Your task to perform on an android device: turn off smart reply in the gmail app Image 0: 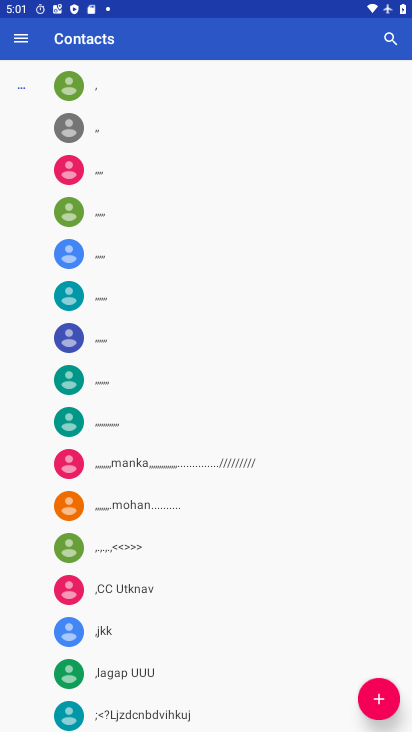
Step 0: press home button
Your task to perform on an android device: turn off smart reply in the gmail app Image 1: 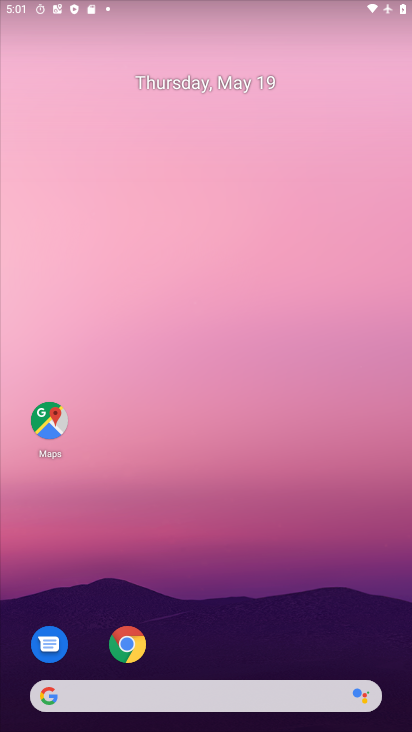
Step 1: drag from (202, 673) to (200, 230)
Your task to perform on an android device: turn off smart reply in the gmail app Image 2: 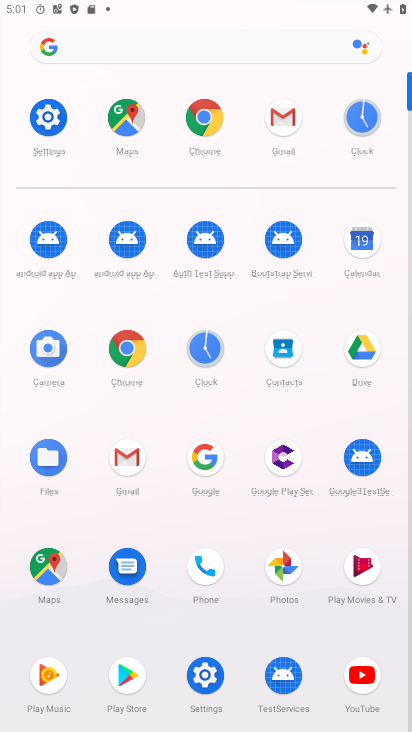
Step 2: click (111, 466)
Your task to perform on an android device: turn off smart reply in the gmail app Image 3: 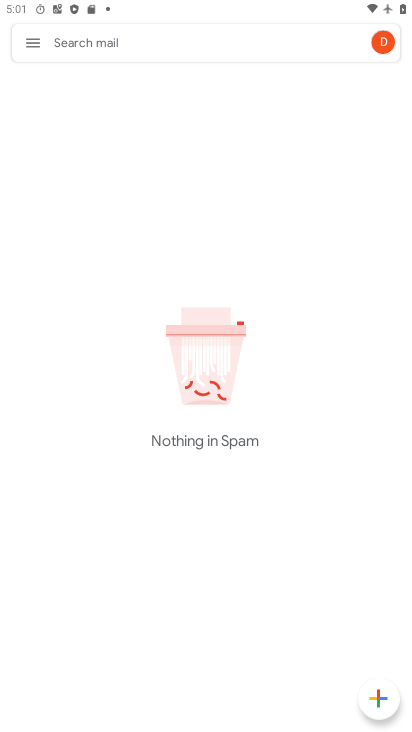
Step 3: click (38, 40)
Your task to perform on an android device: turn off smart reply in the gmail app Image 4: 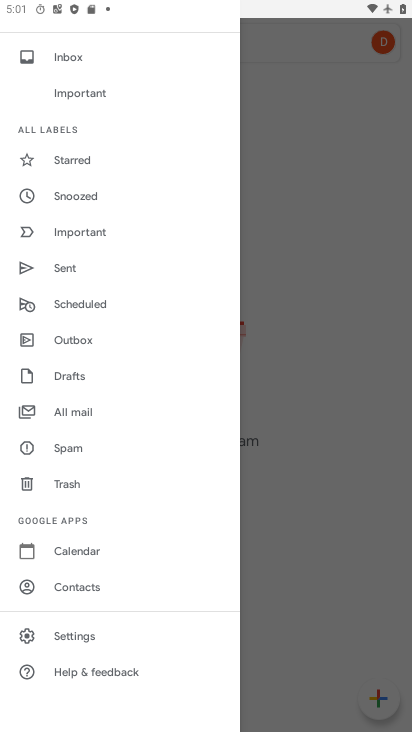
Step 4: click (74, 633)
Your task to perform on an android device: turn off smart reply in the gmail app Image 5: 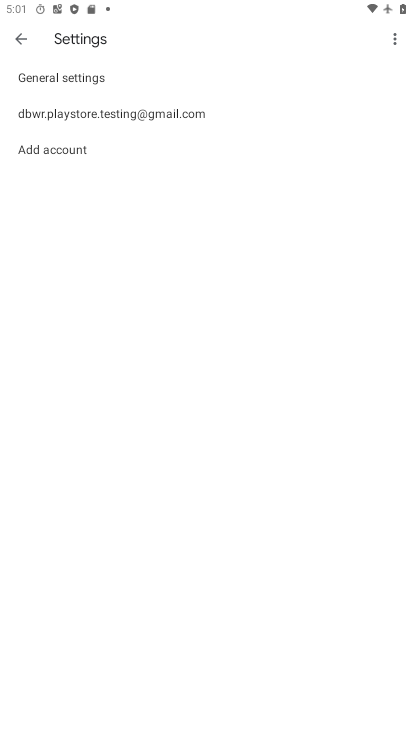
Step 5: click (65, 111)
Your task to perform on an android device: turn off smart reply in the gmail app Image 6: 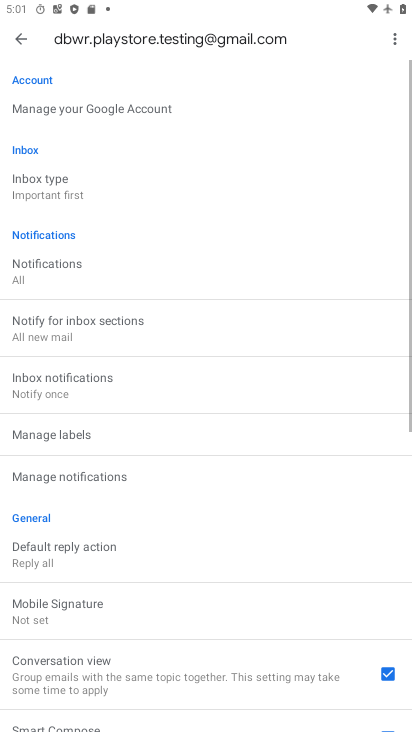
Step 6: drag from (148, 660) to (147, 263)
Your task to perform on an android device: turn off smart reply in the gmail app Image 7: 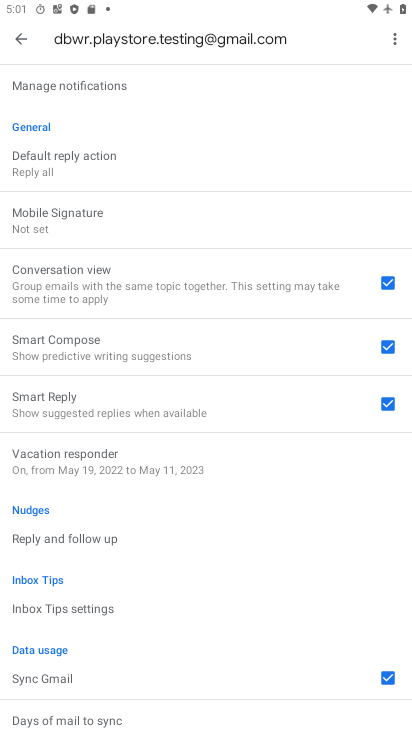
Step 7: click (390, 406)
Your task to perform on an android device: turn off smart reply in the gmail app Image 8: 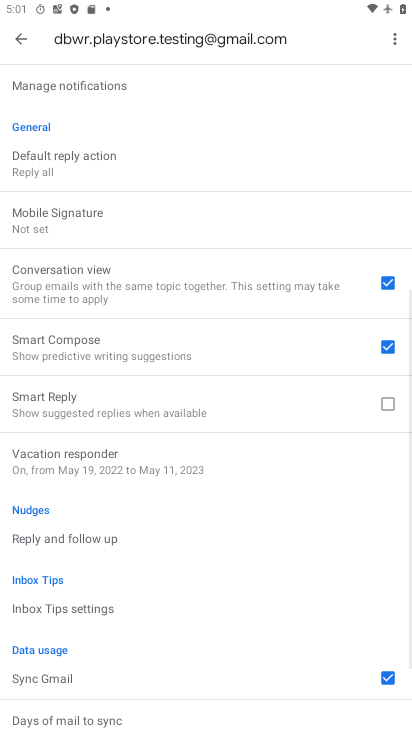
Step 8: task complete